Your task to perform on an android device: turn notification dots on Image 0: 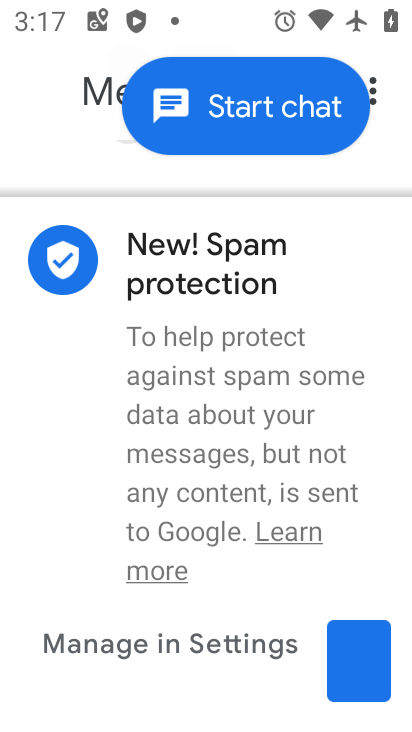
Step 0: press home button
Your task to perform on an android device: turn notification dots on Image 1: 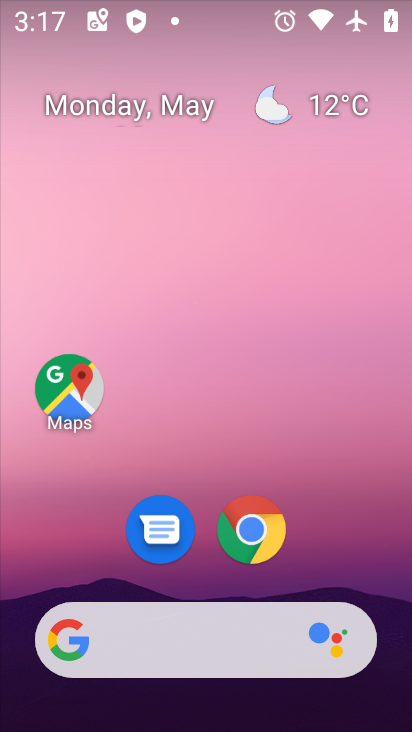
Step 1: drag from (213, 406) to (252, 103)
Your task to perform on an android device: turn notification dots on Image 2: 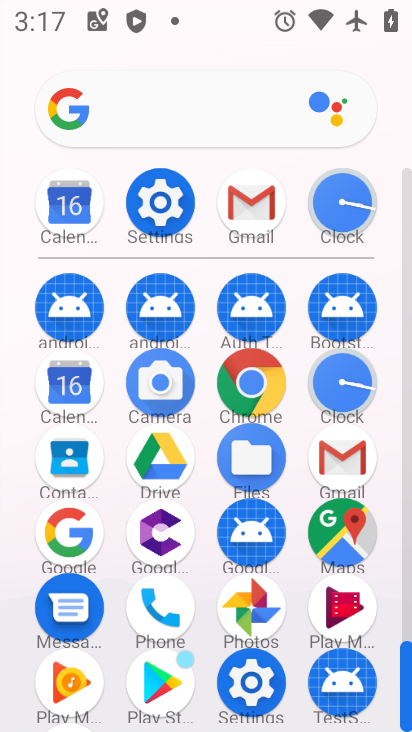
Step 2: click (247, 686)
Your task to perform on an android device: turn notification dots on Image 3: 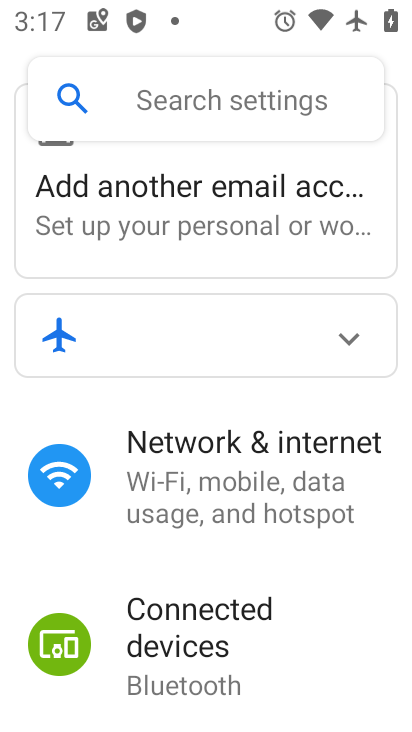
Step 3: drag from (258, 633) to (301, 391)
Your task to perform on an android device: turn notification dots on Image 4: 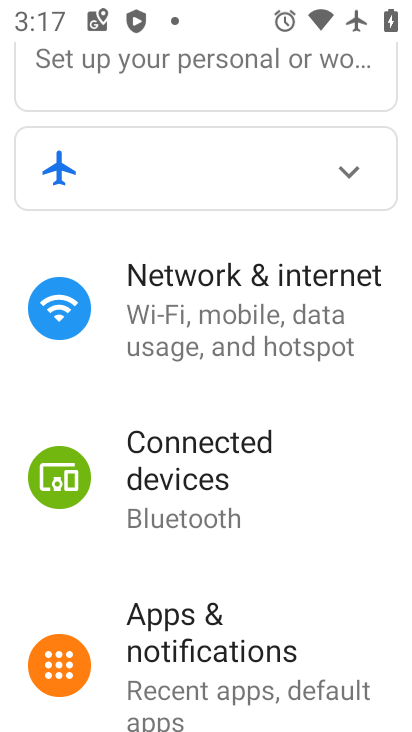
Step 4: drag from (254, 570) to (303, 390)
Your task to perform on an android device: turn notification dots on Image 5: 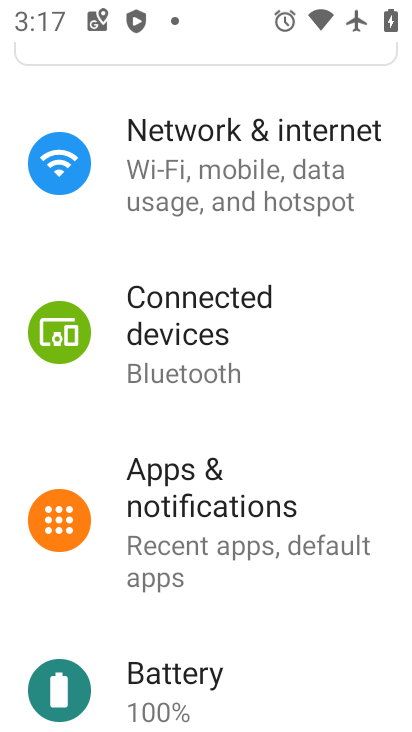
Step 5: drag from (280, 603) to (304, 382)
Your task to perform on an android device: turn notification dots on Image 6: 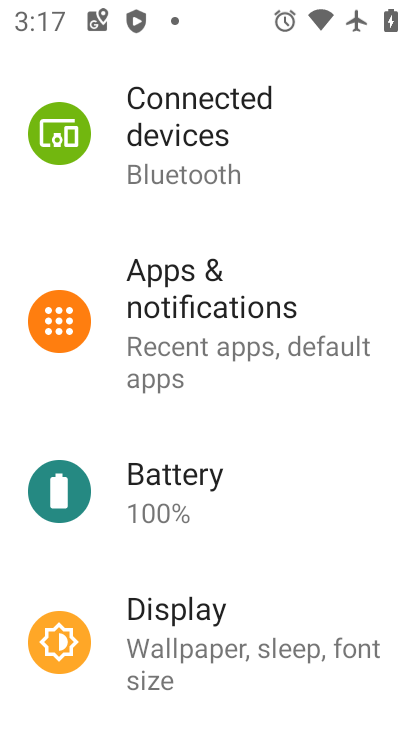
Step 6: click (143, 340)
Your task to perform on an android device: turn notification dots on Image 7: 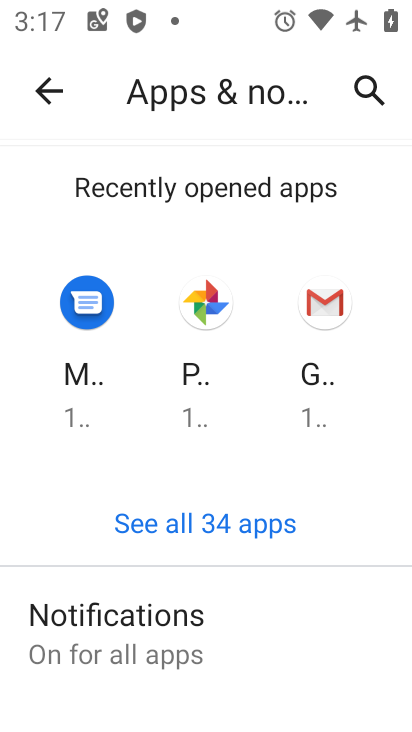
Step 7: click (139, 603)
Your task to perform on an android device: turn notification dots on Image 8: 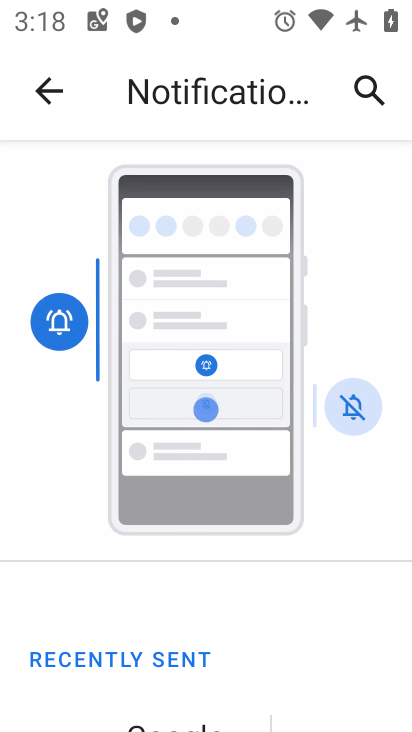
Step 8: drag from (169, 694) to (255, 295)
Your task to perform on an android device: turn notification dots on Image 9: 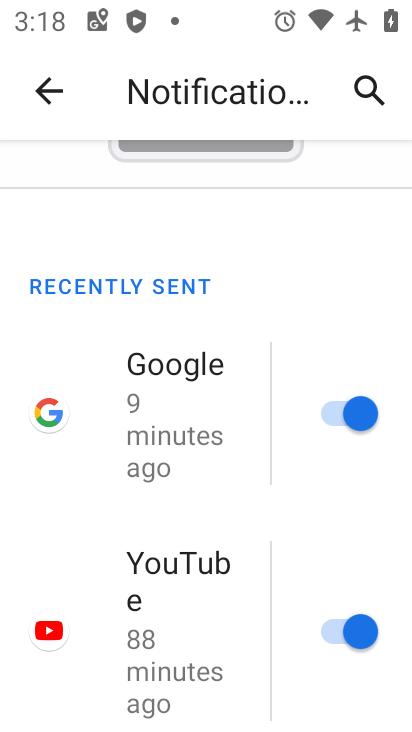
Step 9: drag from (191, 572) to (213, 178)
Your task to perform on an android device: turn notification dots on Image 10: 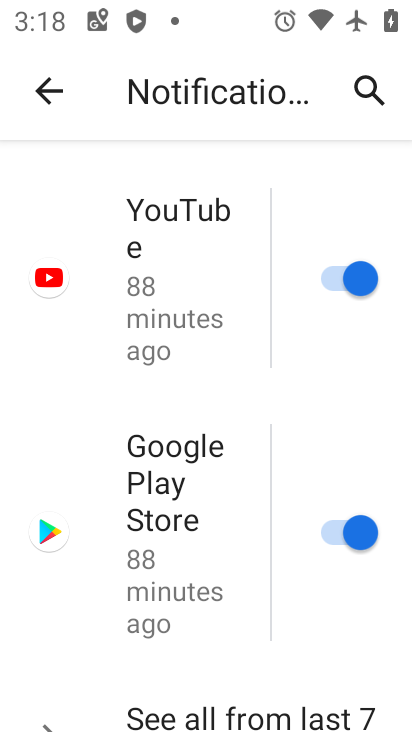
Step 10: drag from (164, 568) to (156, 244)
Your task to perform on an android device: turn notification dots on Image 11: 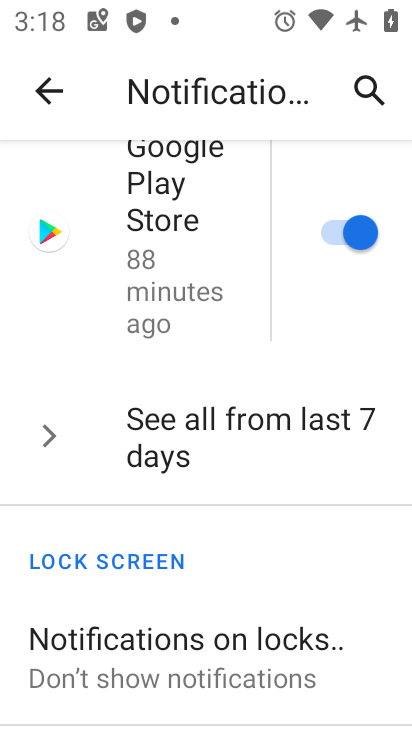
Step 11: drag from (153, 535) to (167, 320)
Your task to perform on an android device: turn notification dots on Image 12: 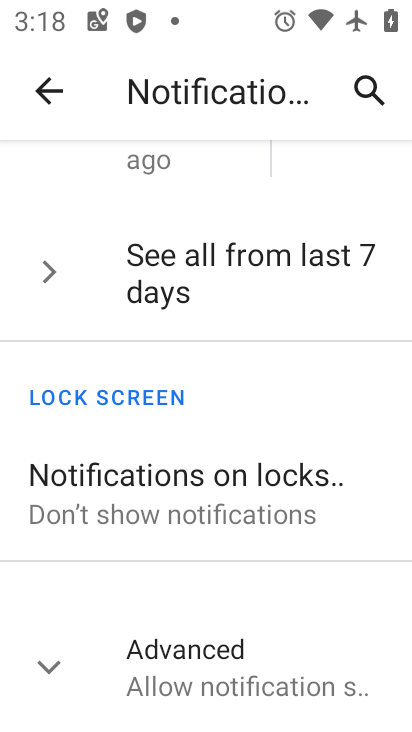
Step 12: click (227, 661)
Your task to perform on an android device: turn notification dots on Image 13: 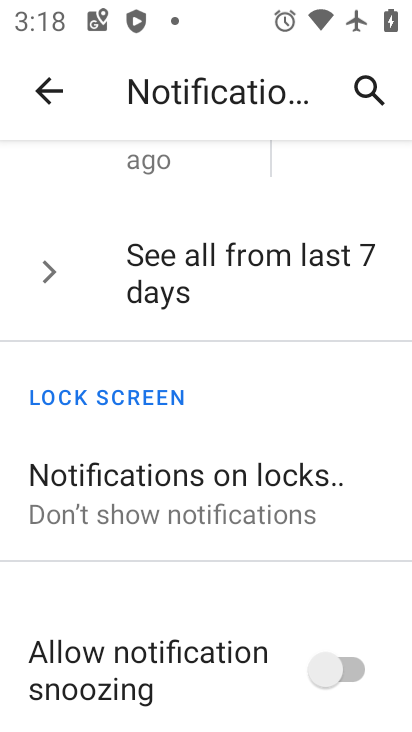
Step 13: task complete